Your task to perform on an android device: change the clock style Image 0: 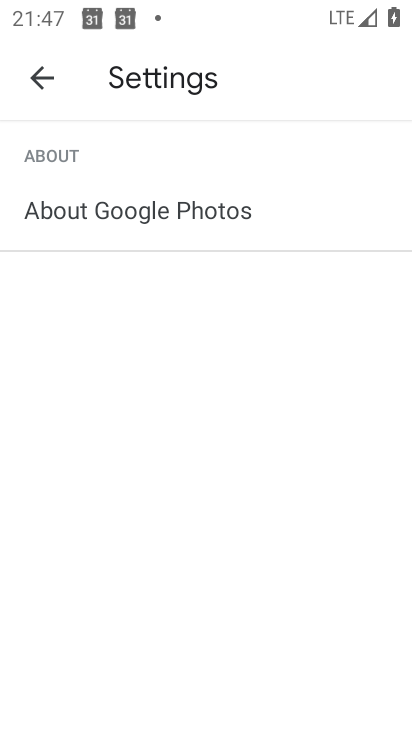
Step 0: press back button
Your task to perform on an android device: change the clock style Image 1: 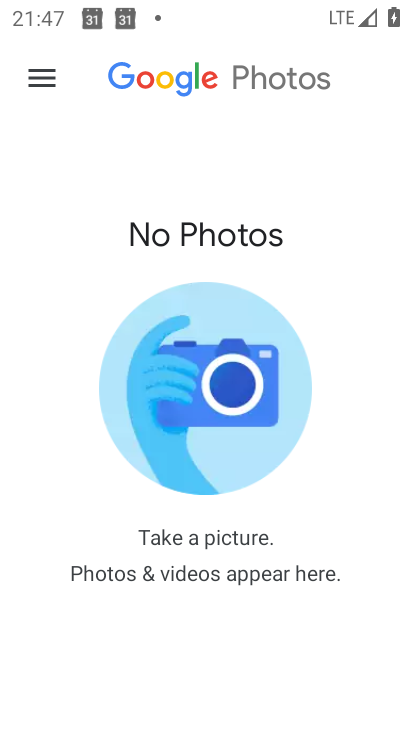
Step 1: press back button
Your task to perform on an android device: change the clock style Image 2: 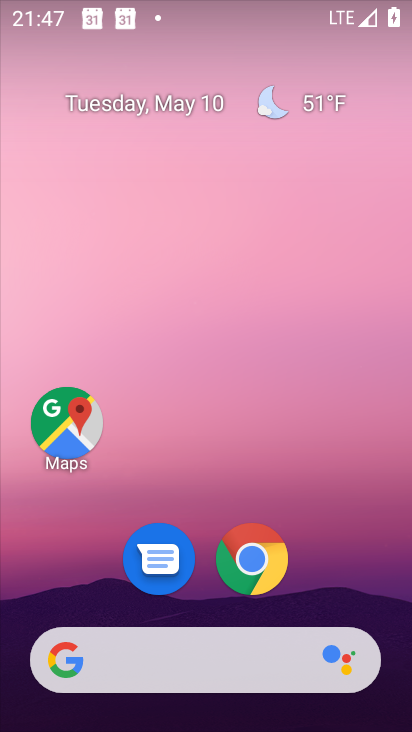
Step 2: drag from (346, 561) to (352, 79)
Your task to perform on an android device: change the clock style Image 3: 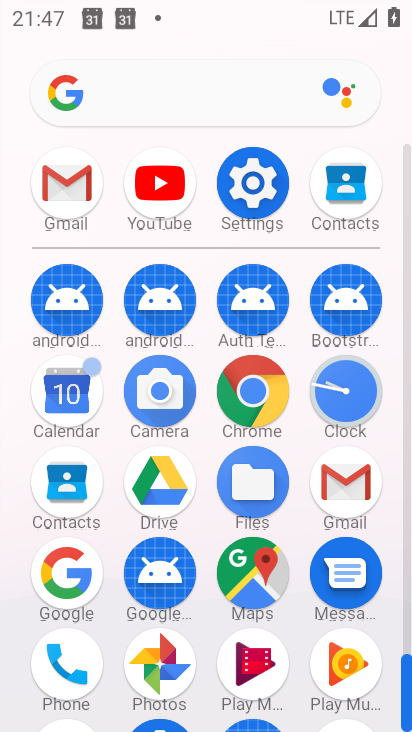
Step 3: click (344, 393)
Your task to perform on an android device: change the clock style Image 4: 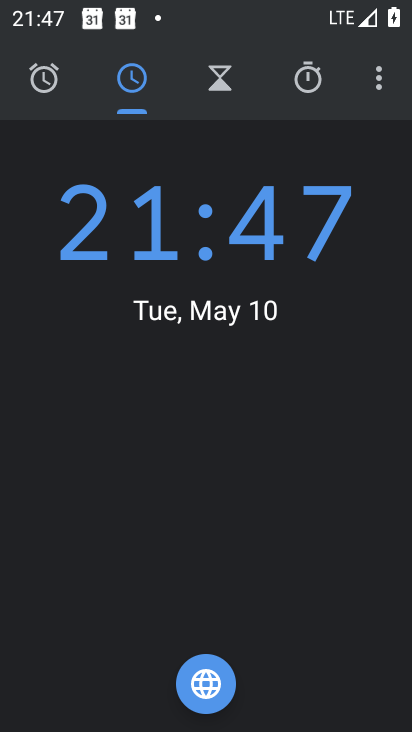
Step 4: click (376, 81)
Your task to perform on an android device: change the clock style Image 5: 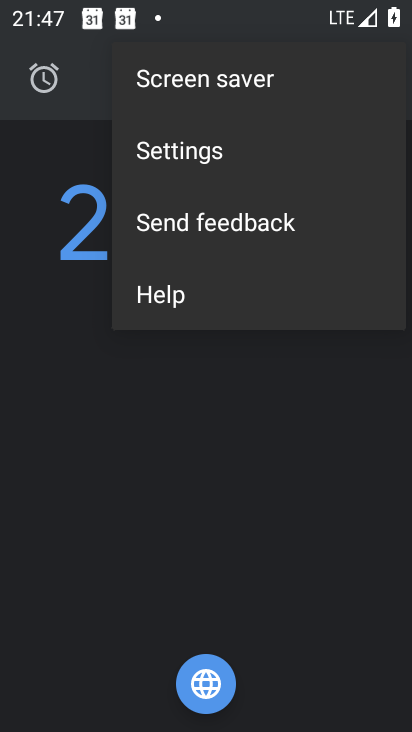
Step 5: click (216, 154)
Your task to perform on an android device: change the clock style Image 6: 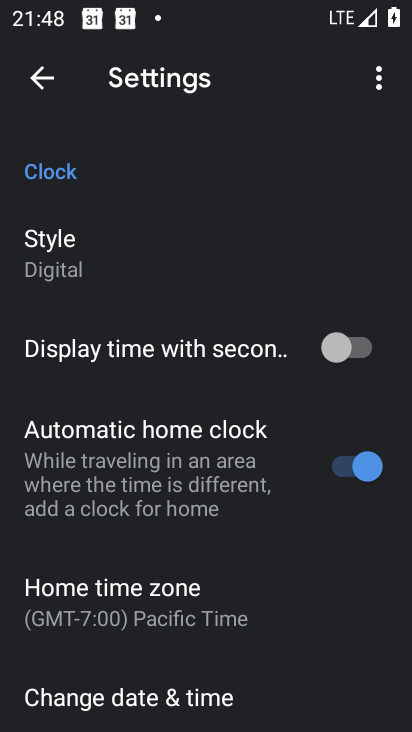
Step 6: click (65, 262)
Your task to perform on an android device: change the clock style Image 7: 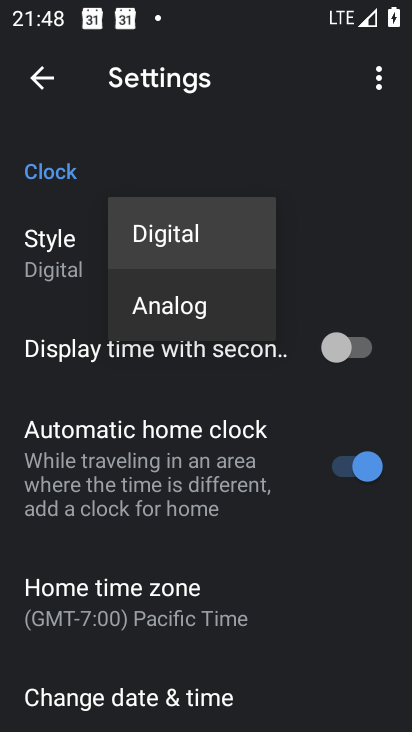
Step 7: click (160, 296)
Your task to perform on an android device: change the clock style Image 8: 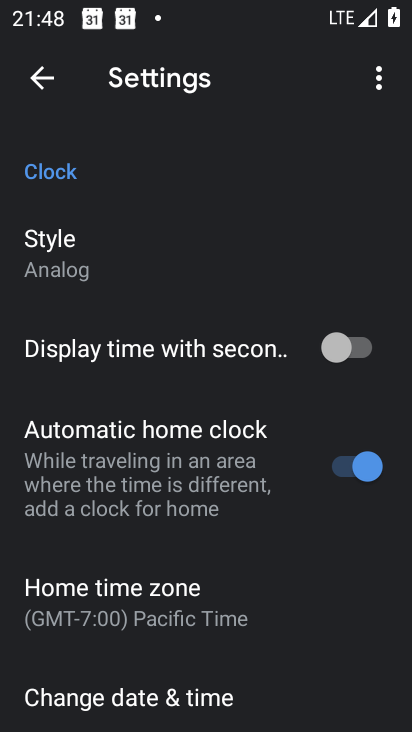
Step 8: task complete